Your task to perform on an android device: Go to display settings Image 0: 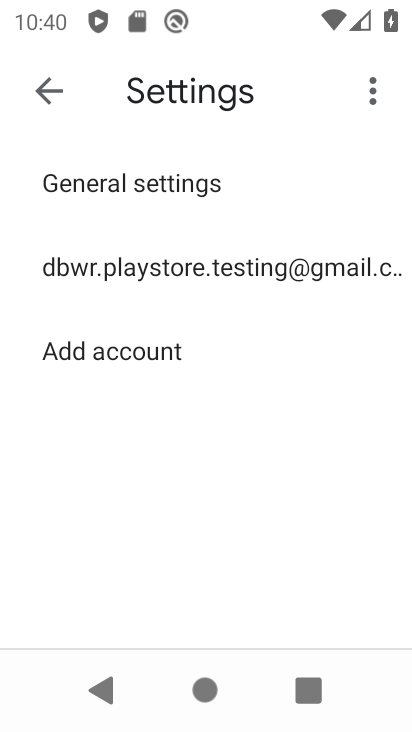
Step 0: press home button
Your task to perform on an android device: Go to display settings Image 1: 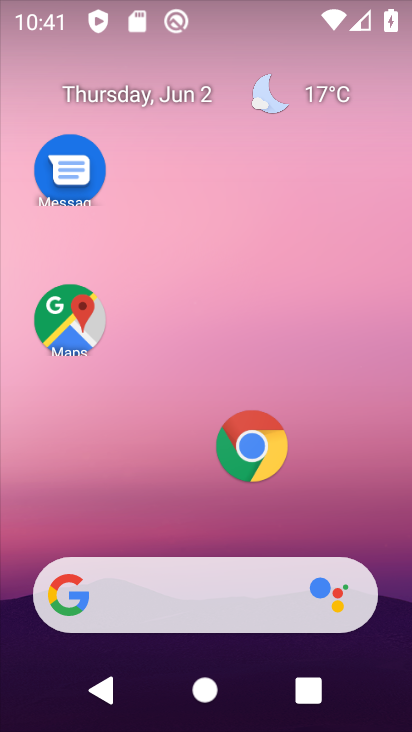
Step 1: drag from (382, 513) to (330, 35)
Your task to perform on an android device: Go to display settings Image 2: 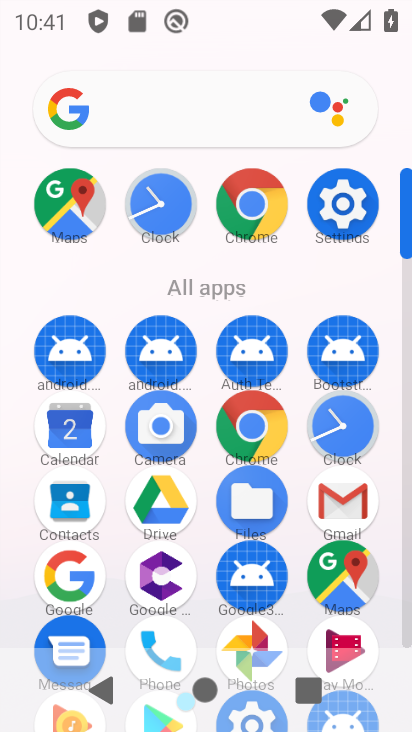
Step 2: click (317, 209)
Your task to perform on an android device: Go to display settings Image 3: 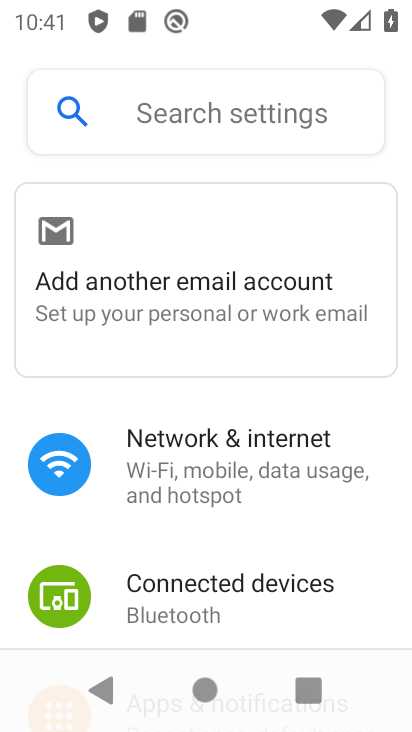
Step 3: drag from (292, 505) to (273, 74)
Your task to perform on an android device: Go to display settings Image 4: 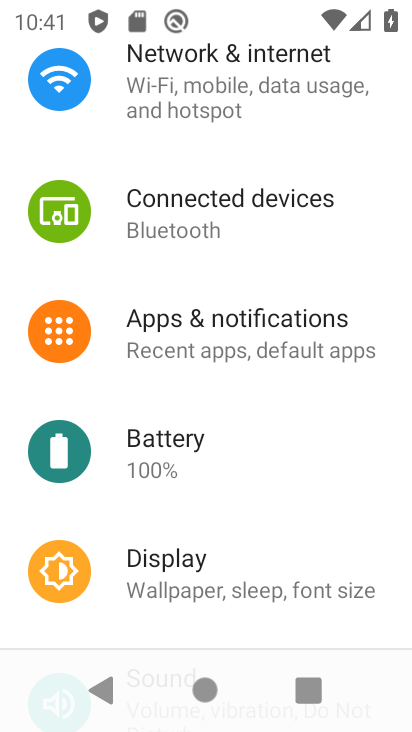
Step 4: drag from (313, 489) to (289, 190)
Your task to perform on an android device: Go to display settings Image 5: 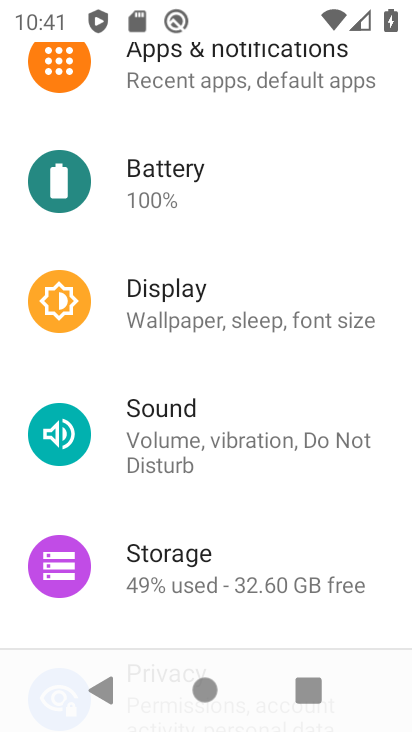
Step 5: click (148, 315)
Your task to perform on an android device: Go to display settings Image 6: 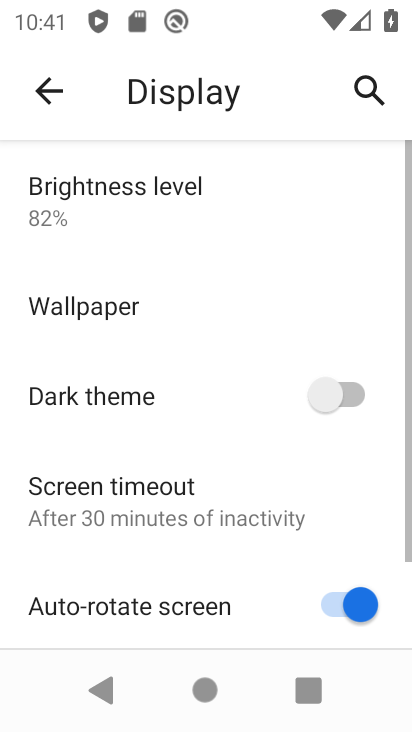
Step 6: task complete